Your task to perform on an android device: Add "usb-a" to the cart on walmart Image 0: 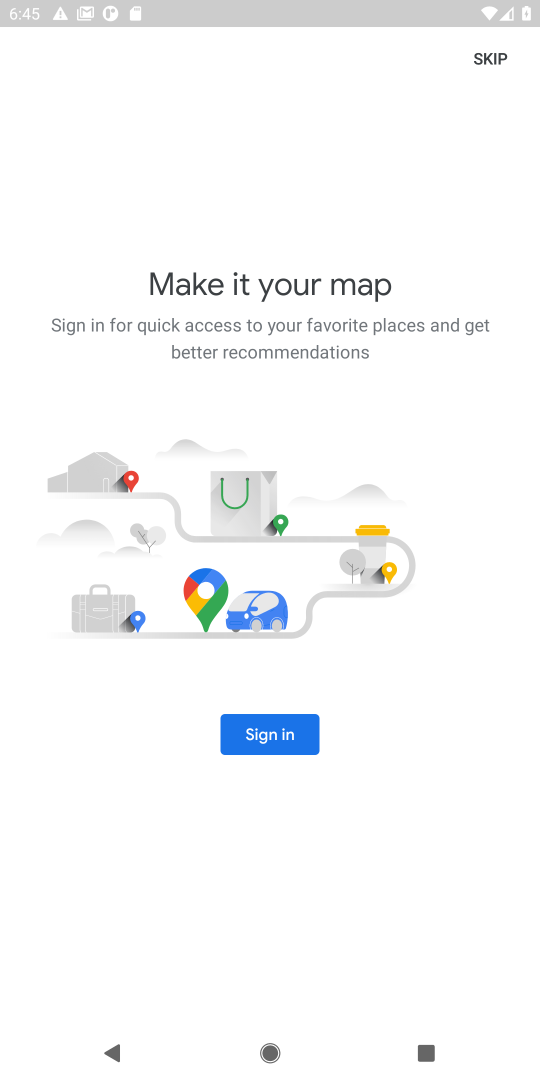
Step 0: press home button
Your task to perform on an android device: Add "usb-a" to the cart on walmart Image 1: 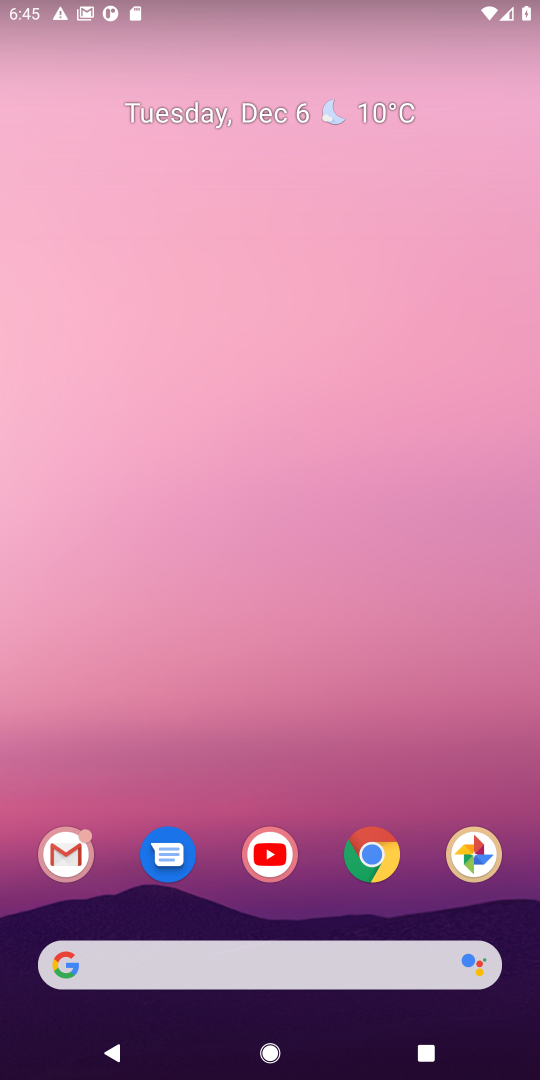
Step 1: click (363, 846)
Your task to perform on an android device: Add "usb-a" to the cart on walmart Image 2: 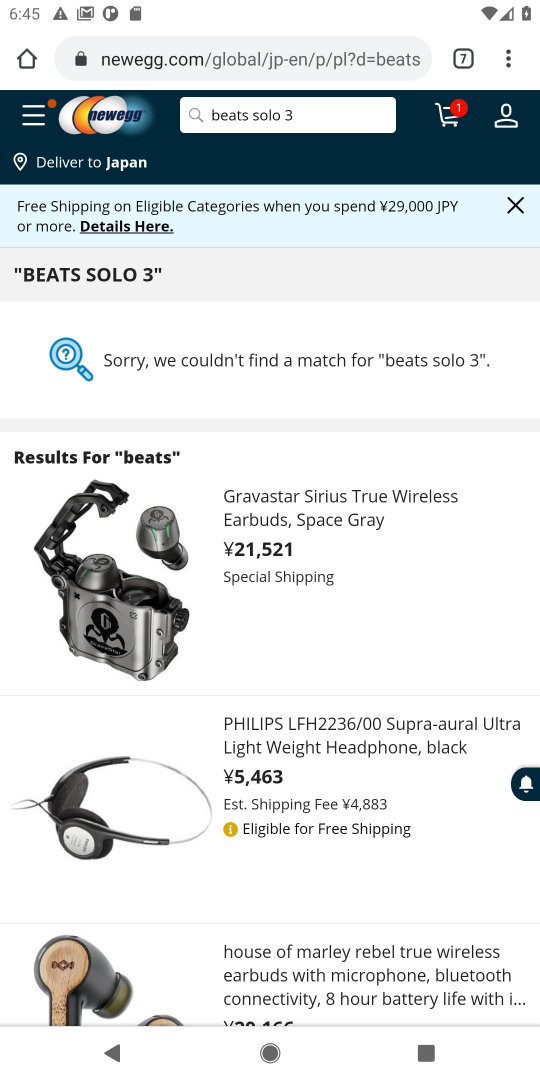
Step 2: click (460, 49)
Your task to perform on an android device: Add "usb-a" to the cart on walmart Image 3: 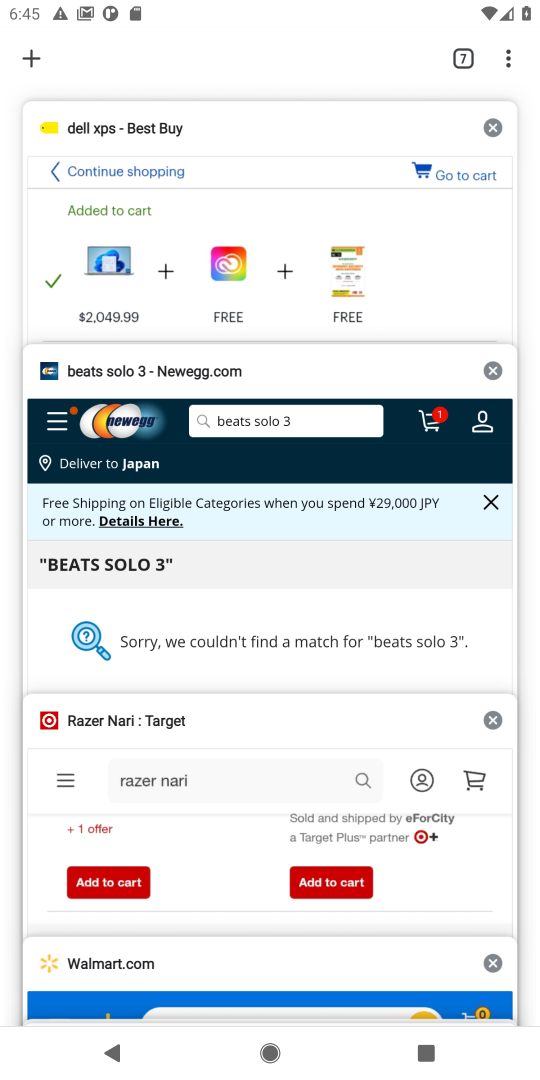
Step 3: click (246, 974)
Your task to perform on an android device: Add "usb-a" to the cart on walmart Image 4: 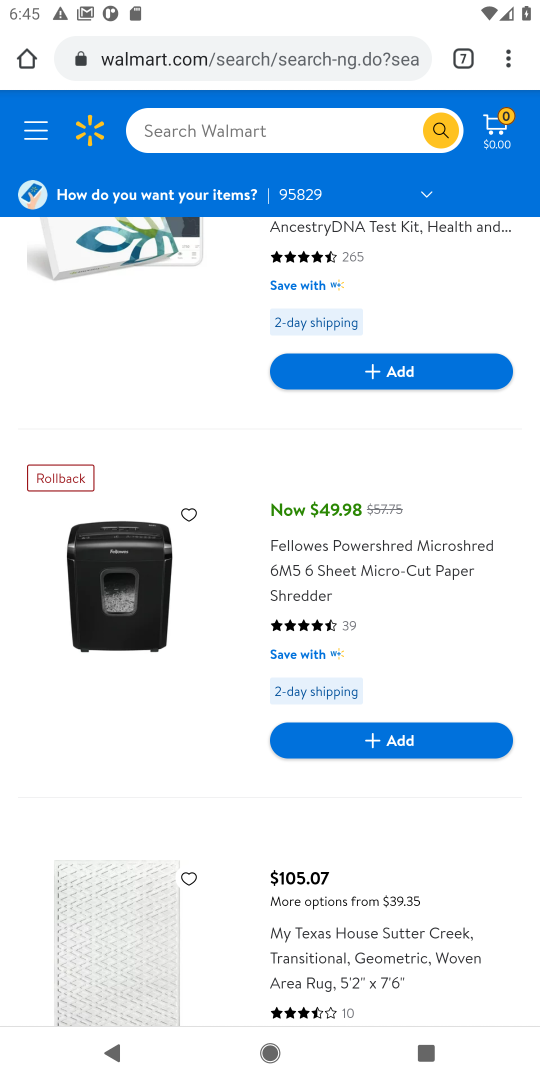
Step 4: click (195, 120)
Your task to perform on an android device: Add "usb-a" to the cart on walmart Image 5: 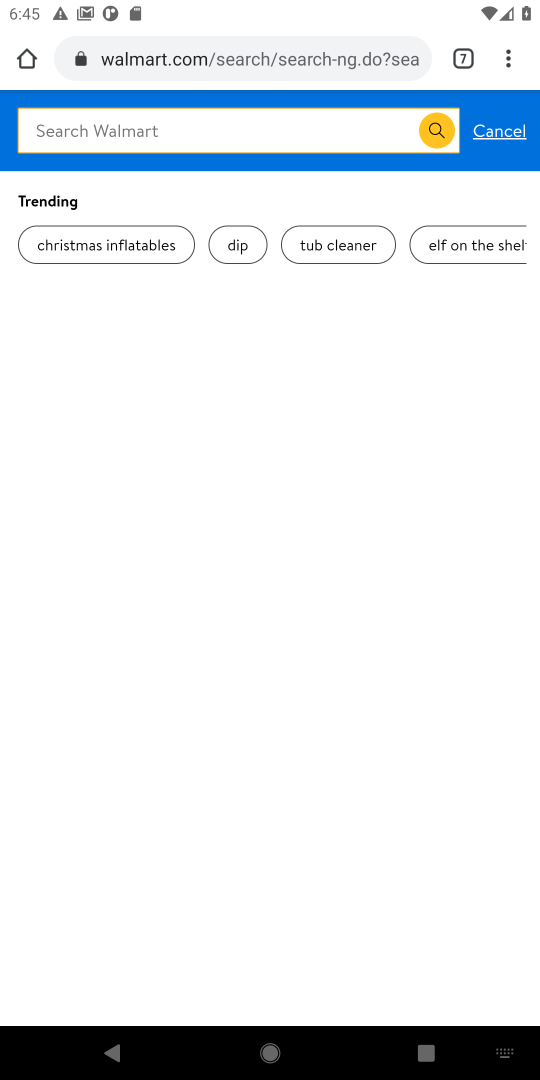
Step 5: type "usb-a"
Your task to perform on an android device: Add "usb-a" to the cart on walmart Image 6: 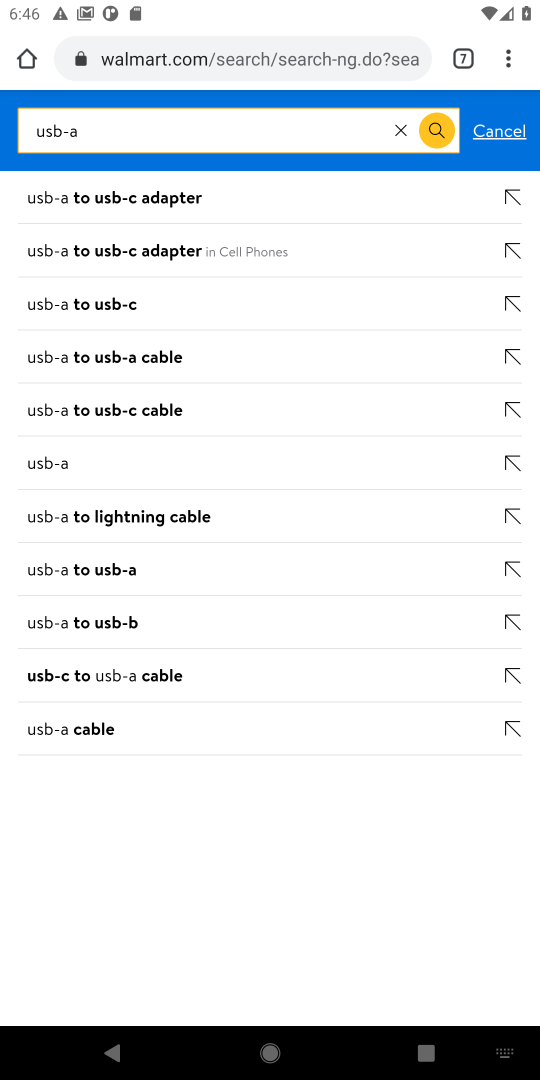
Step 6: click (60, 456)
Your task to perform on an android device: Add "usb-a" to the cart on walmart Image 7: 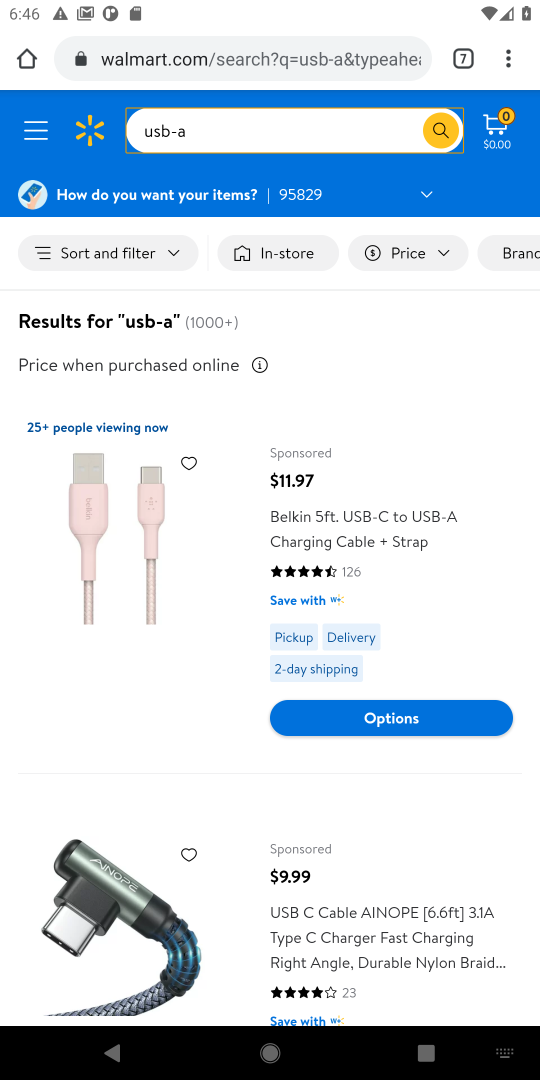
Step 7: click (371, 529)
Your task to perform on an android device: Add "usb-a" to the cart on walmart Image 8: 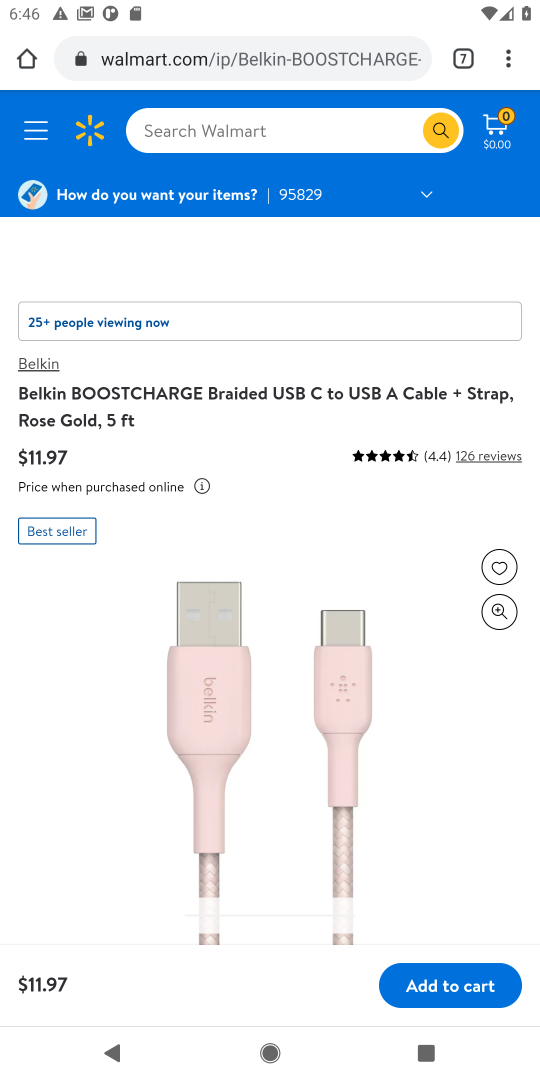
Step 8: click (411, 984)
Your task to perform on an android device: Add "usb-a" to the cart on walmart Image 9: 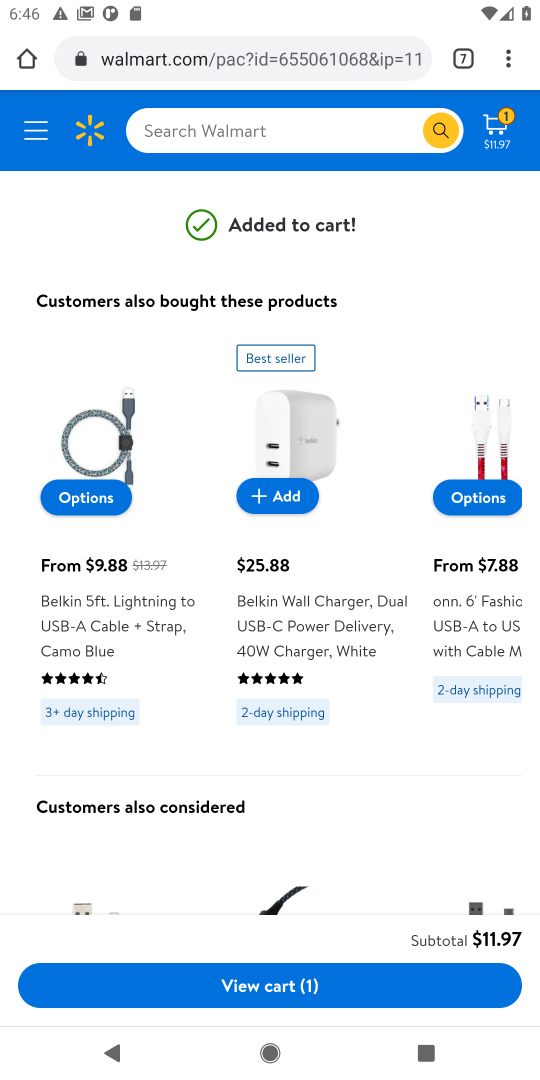
Step 9: task complete